Your task to perform on an android device: Open Android settings Image 0: 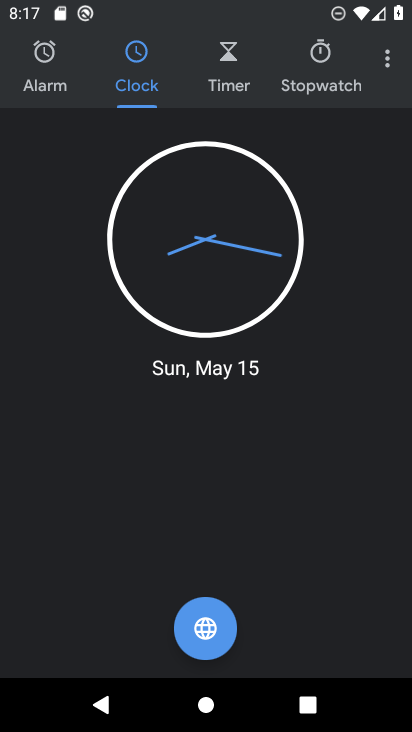
Step 0: press home button
Your task to perform on an android device: Open Android settings Image 1: 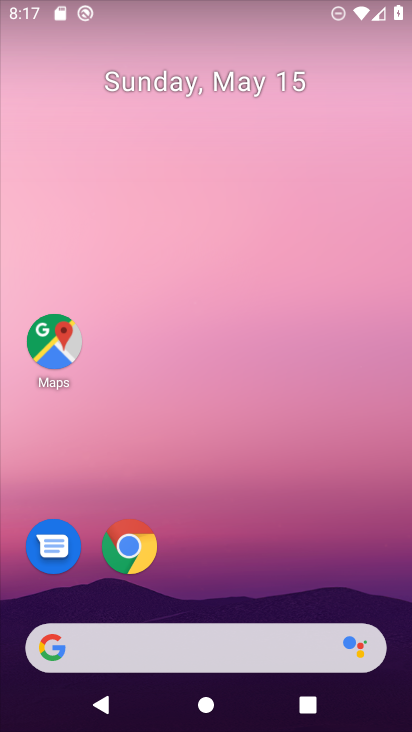
Step 1: drag from (222, 520) to (166, 30)
Your task to perform on an android device: Open Android settings Image 2: 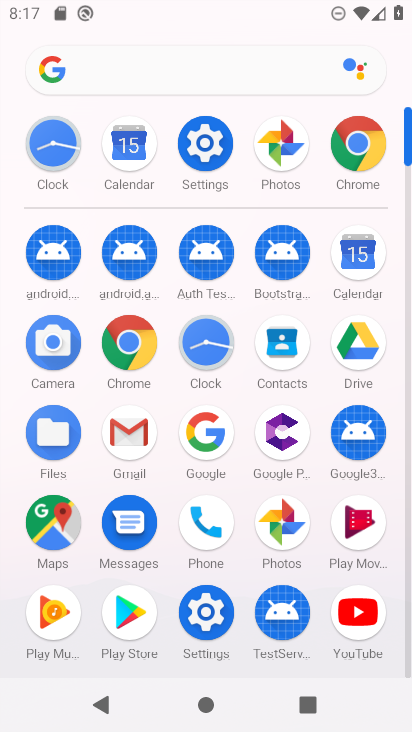
Step 2: click (199, 144)
Your task to perform on an android device: Open Android settings Image 3: 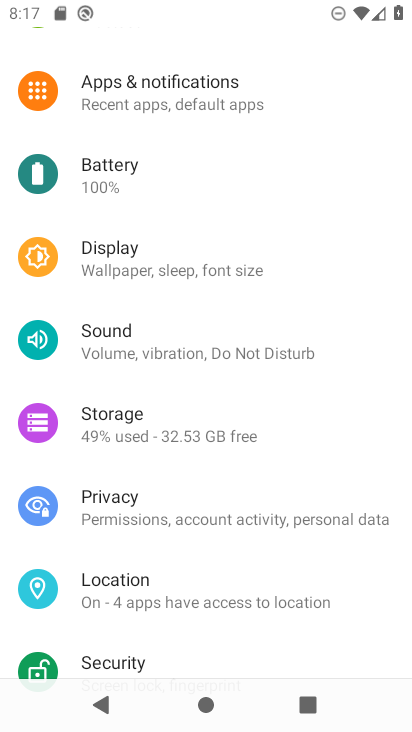
Step 3: drag from (271, 579) to (262, 81)
Your task to perform on an android device: Open Android settings Image 4: 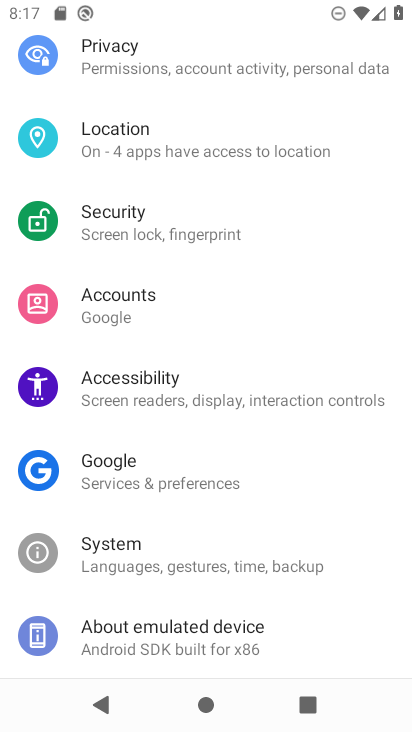
Step 4: click (274, 639)
Your task to perform on an android device: Open Android settings Image 5: 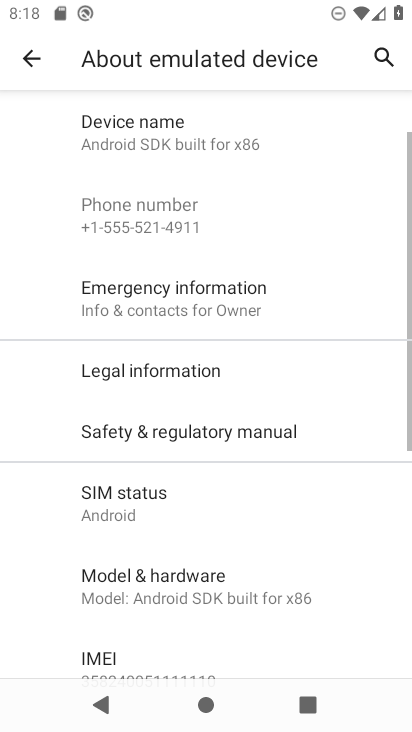
Step 5: task complete